Your task to perform on an android device: What's on my calendar today? Image 0: 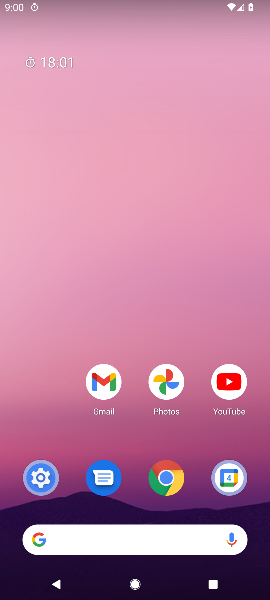
Step 0: drag from (112, 429) to (170, 4)
Your task to perform on an android device: What's on my calendar today? Image 1: 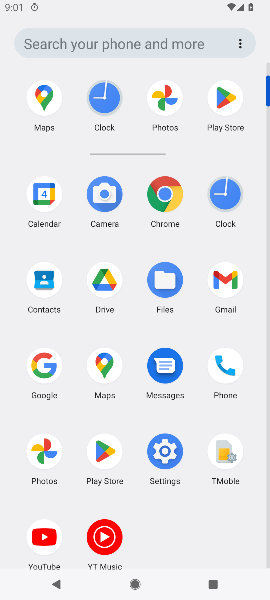
Step 1: drag from (200, 160) to (161, 439)
Your task to perform on an android device: What's on my calendar today? Image 2: 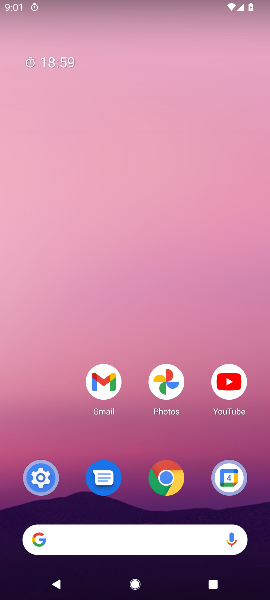
Step 2: drag from (161, 445) to (166, 96)
Your task to perform on an android device: What's on my calendar today? Image 3: 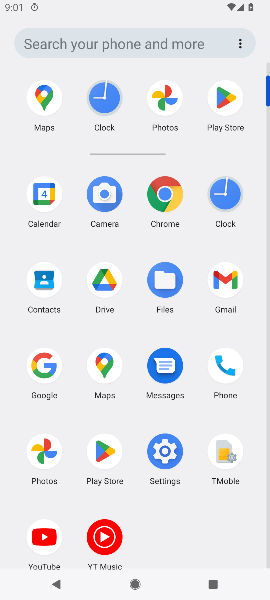
Step 3: click (48, 199)
Your task to perform on an android device: What's on my calendar today? Image 4: 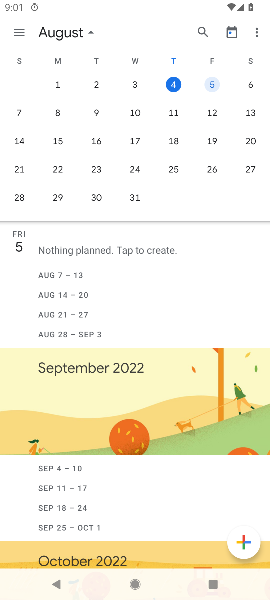
Step 4: click (173, 85)
Your task to perform on an android device: What's on my calendar today? Image 5: 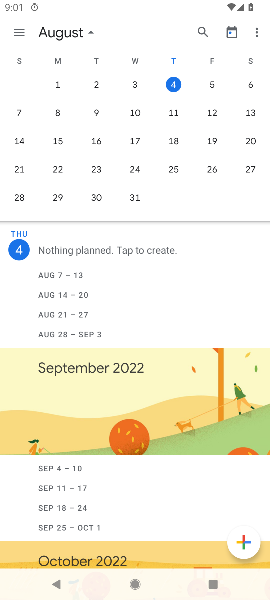
Step 5: task complete